Your task to perform on an android device: turn off picture-in-picture Image 0: 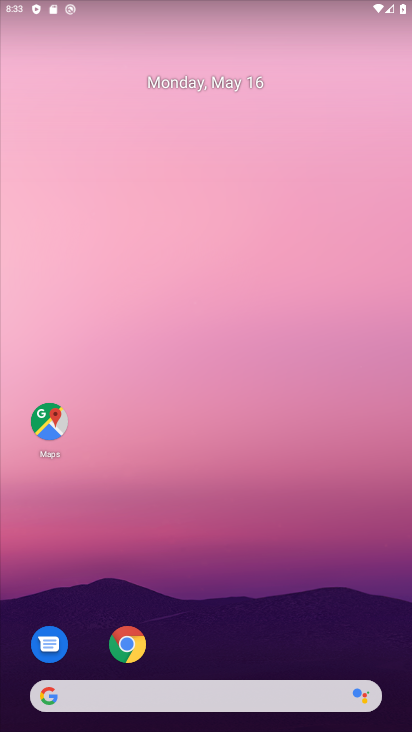
Step 0: click (122, 650)
Your task to perform on an android device: turn off picture-in-picture Image 1: 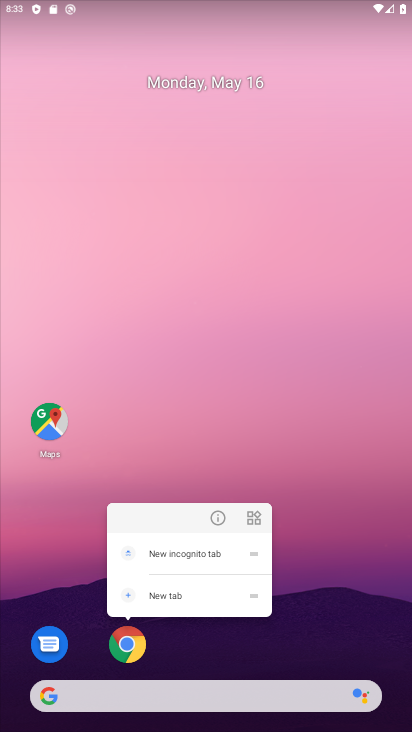
Step 1: click (213, 520)
Your task to perform on an android device: turn off picture-in-picture Image 2: 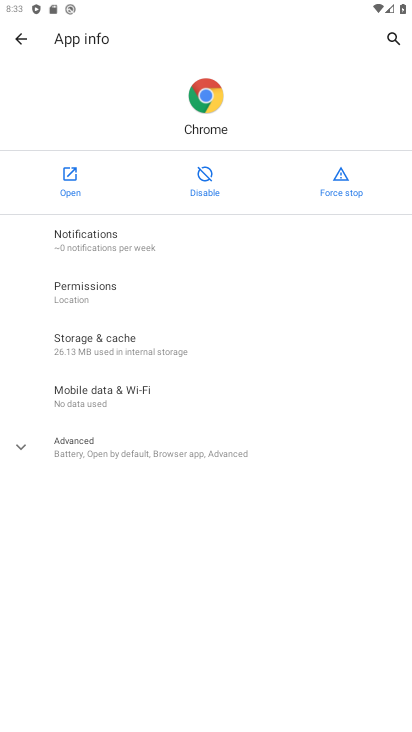
Step 2: click (163, 440)
Your task to perform on an android device: turn off picture-in-picture Image 3: 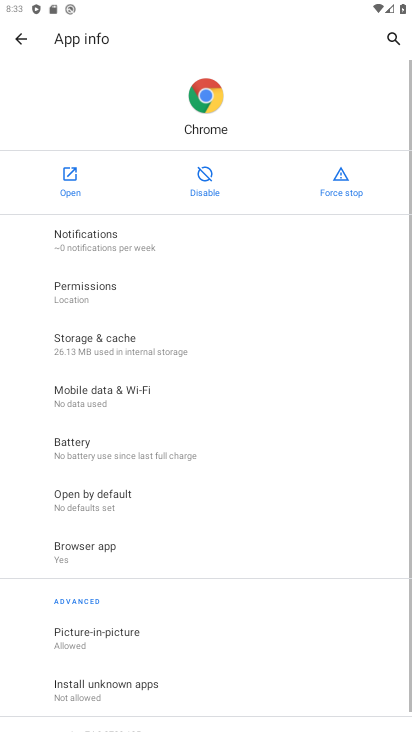
Step 3: drag from (216, 598) to (345, 158)
Your task to perform on an android device: turn off picture-in-picture Image 4: 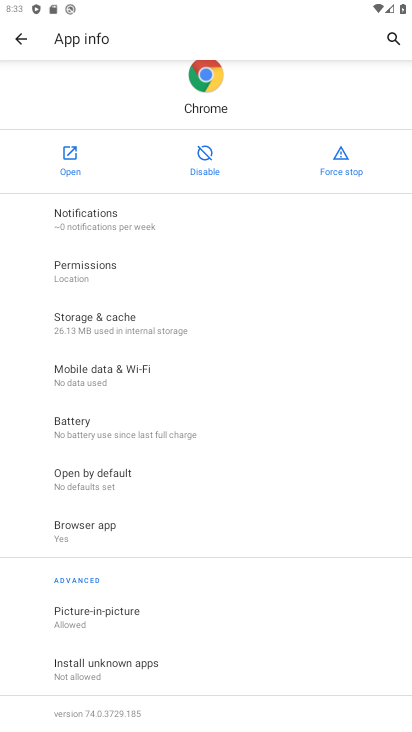
Step 4: click (138, 610)
Your task to perform on an android device: turn off picture-in-picture Image 5: 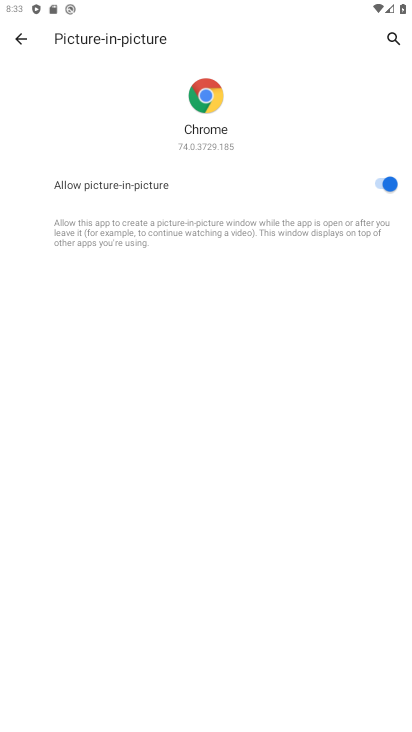
Step 5: click (383, 187)
Your task to perform on an android device: turn off picture-in-picture Image 6: 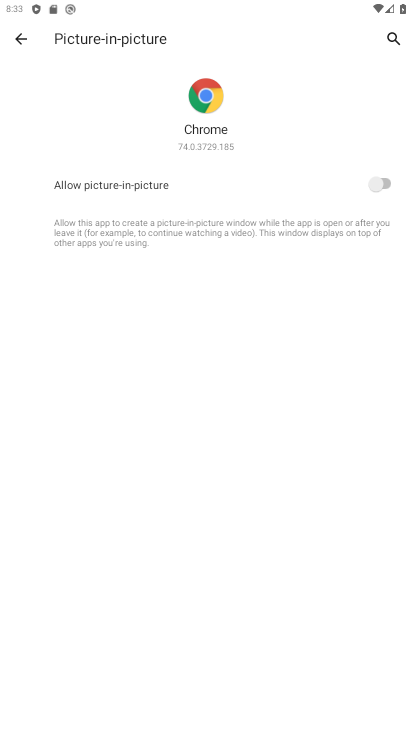
Step 6: task complete